Your task to perform on an android device: open wifi settings Image 0: 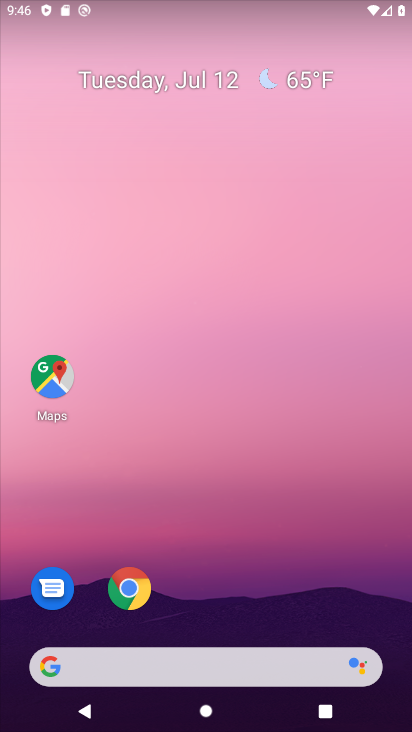
Step 0: drag from (23, 705) to (254, 99)
Your task to perform on an android device: open wifi settings Image 1: 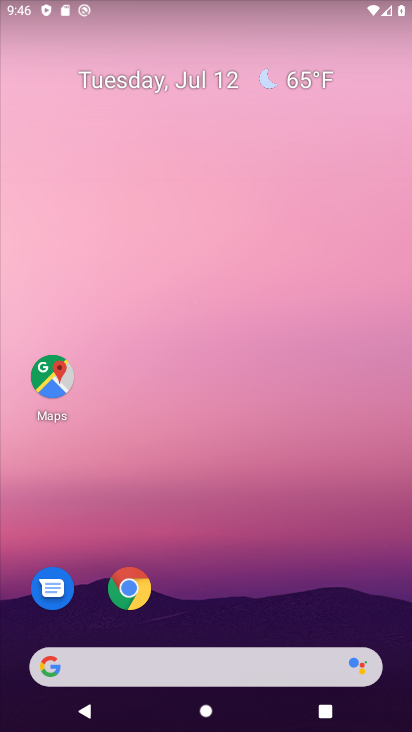
Step 1: drag from (34, 705) to (260, 96)
Your task to perform on an android device: open wifi settings Image 2: 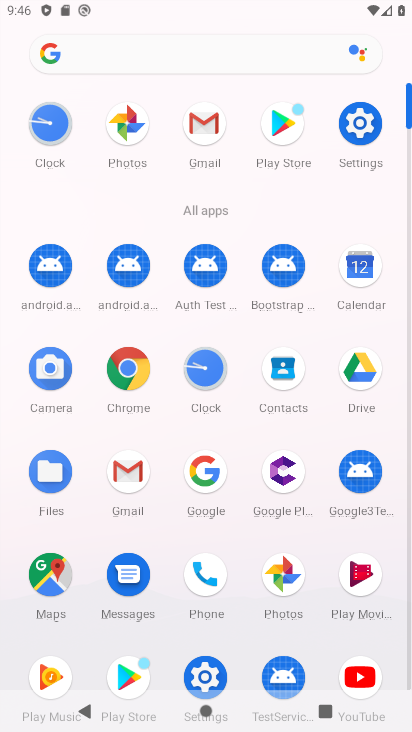
Step 2: click (195, 680)
Your task to perform on an android device: open wifi settings Image 3: 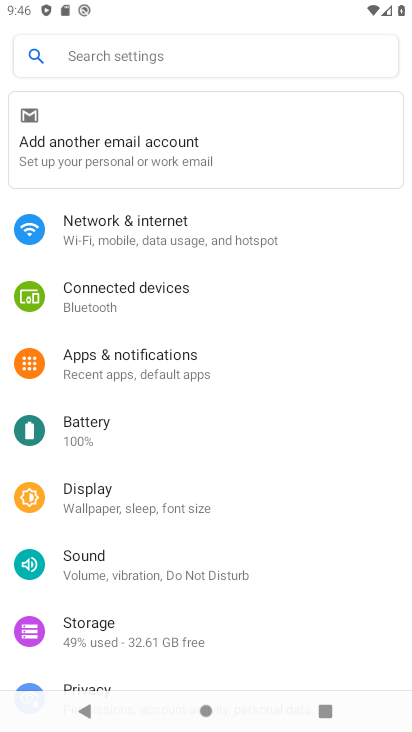
Step 3: click (98, 242)
Your task to perform on an android device: open wifi settings Image 4: 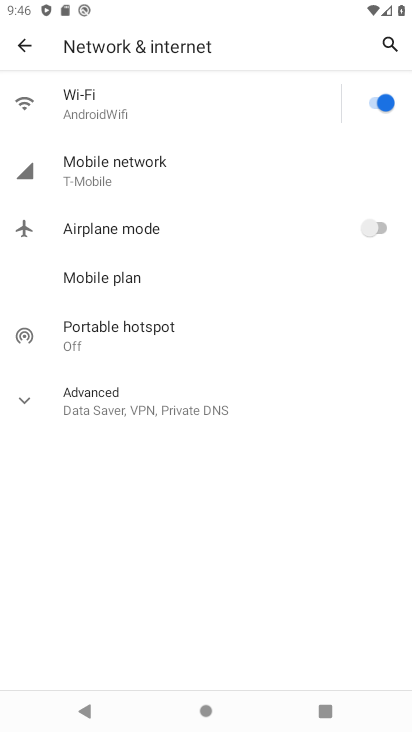
Step 4: task complete